Your task to perform on an android device: Open Google Chrome and open the bookmarks view Image 0: 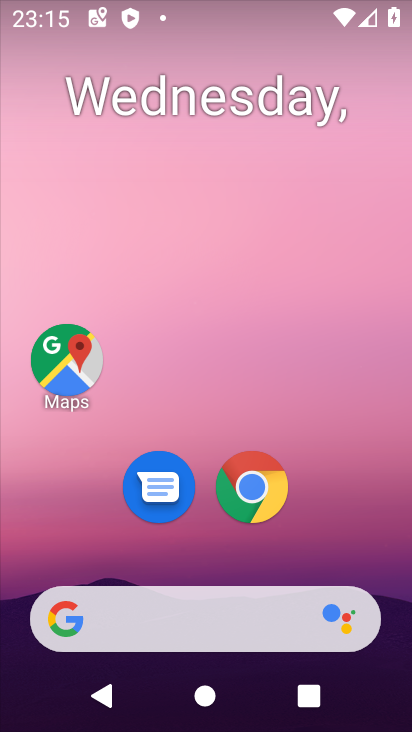
Step 0: click (253, 487)
Your task to perform on an android device: Open Google Chrome and open the bookmarks view Image 1: 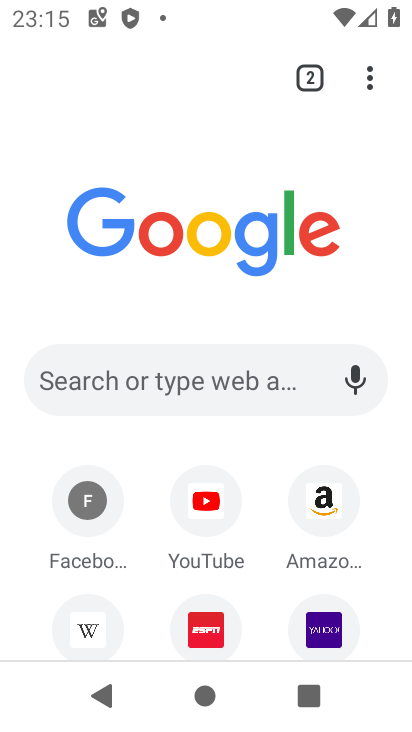
Step 1: click (372, 82)
Your task to perform on an android device: Open Google Chrome and open the bookmarks view Image 2: 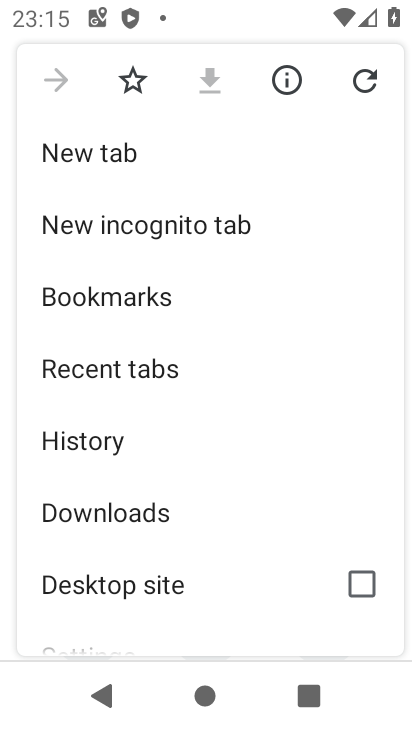
Step 2: click (100, 303)
Your task to perform on an android device: Open Google Chrome and open the bookmarks view Image 3: 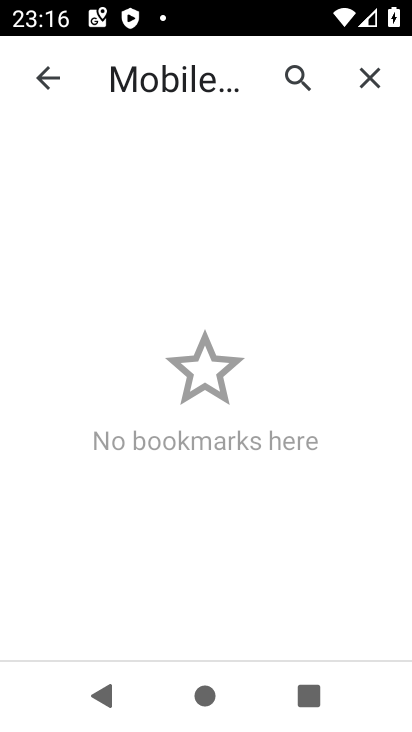
Step 3: task complete